Your task to perform on an android device: Open Yahoo.com Image 0: 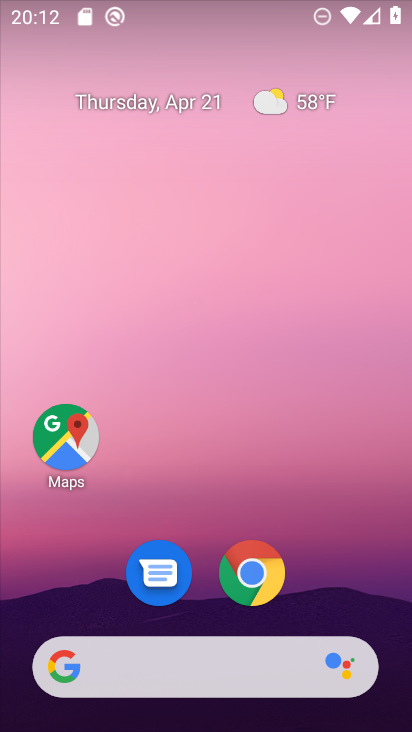
Step 0: click (231, 634)
Your task to perform on an android device: Open Yahoo.com Image 1: 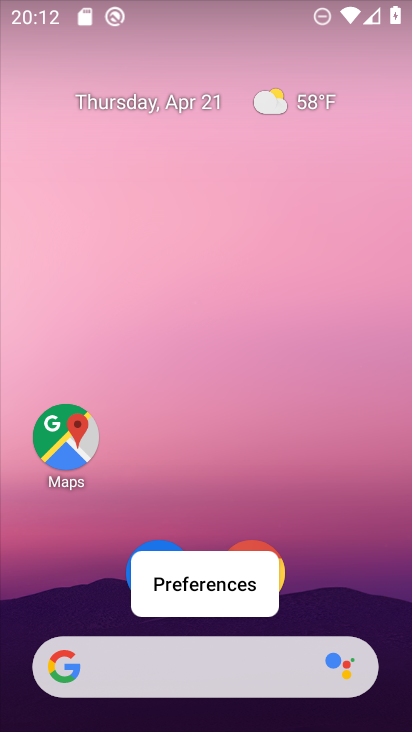
Step 1: click (255, 543)
Your task to perform on an android device: Open Yahoo.com Image 2: 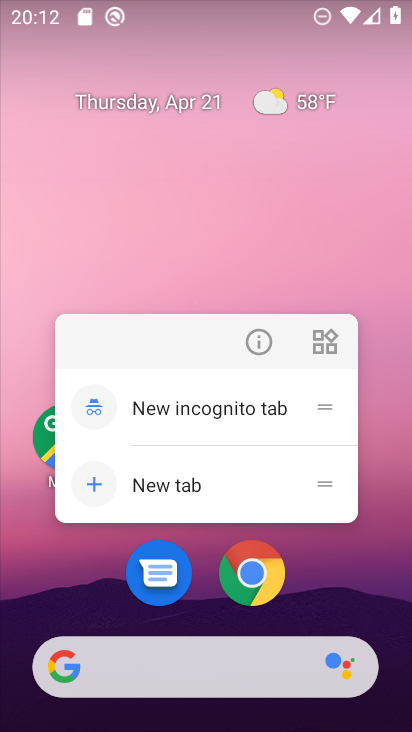
Step 2: click (251, 593)
Your task to perform on an android device: Open Yahoo.com Image 3: 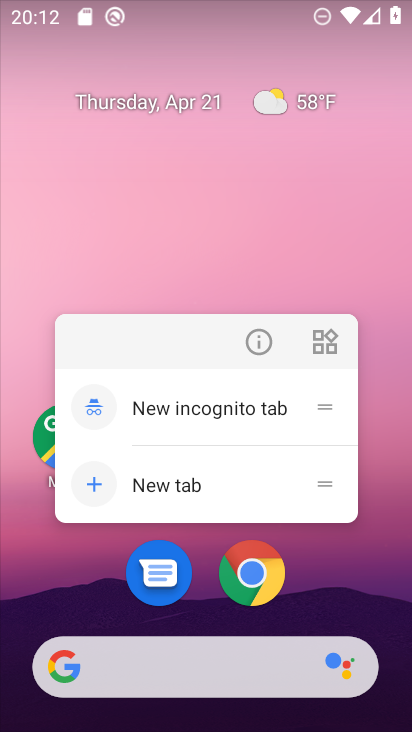
Step 3: click (251, 574)
Your task to perform on an android device: Open Yahoo.com Image 4: 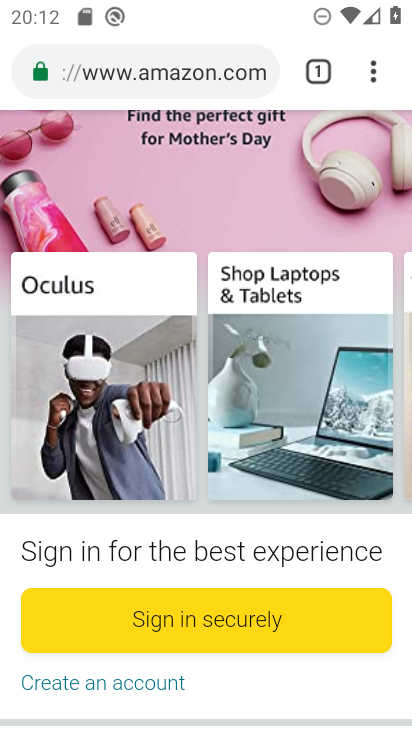
Step 4: click (326, 68)
Your task to perform on an android device: Open Yahoo.com Image 5: 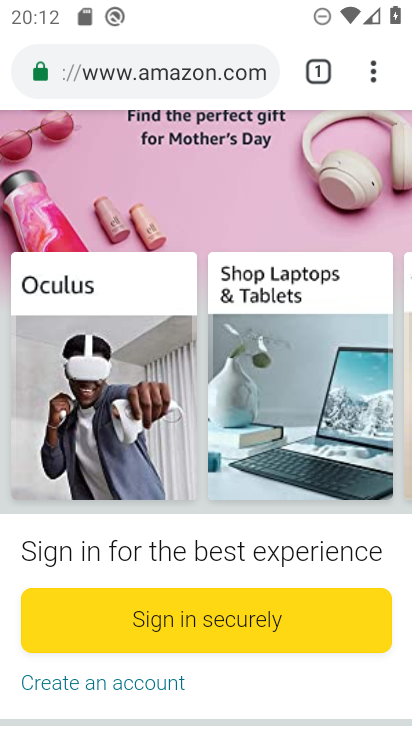
Step 5: click (311, 72)
Your task to perform on an android device: Open Yahoo.com Image 6: 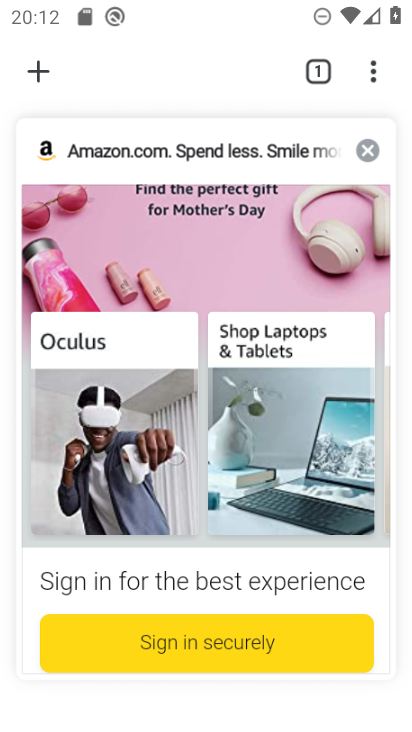
Step 6: click (373, 144)
Your task to perform on an android device: Open Yahoo.com Image 7: 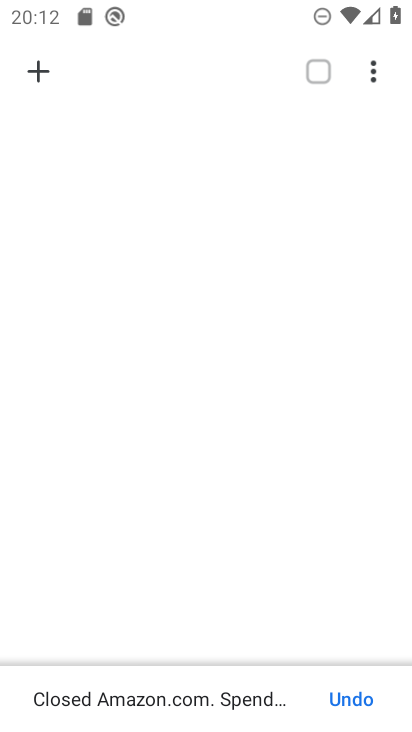
Step 7: click (28, 64)
Your task to perform on an android device: Open Yahoo.com Image 8: 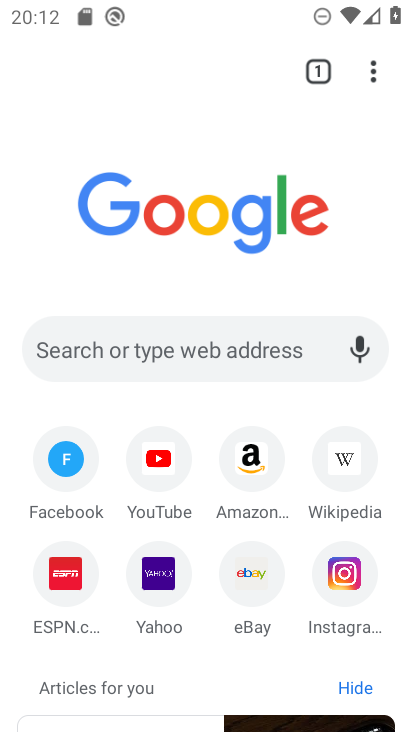
Step 8: click (165, 575)
Your task to perform on an android device: Open Yahoo.com Image 9: 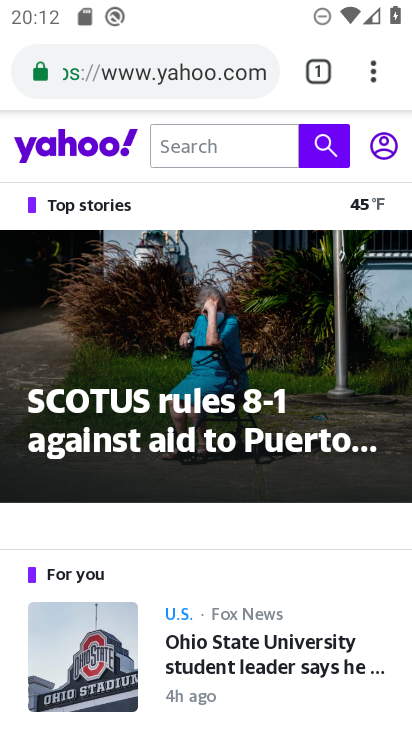
Step 9: task complete